Your task to perform on an android device: Open ESPN.com Image 0: 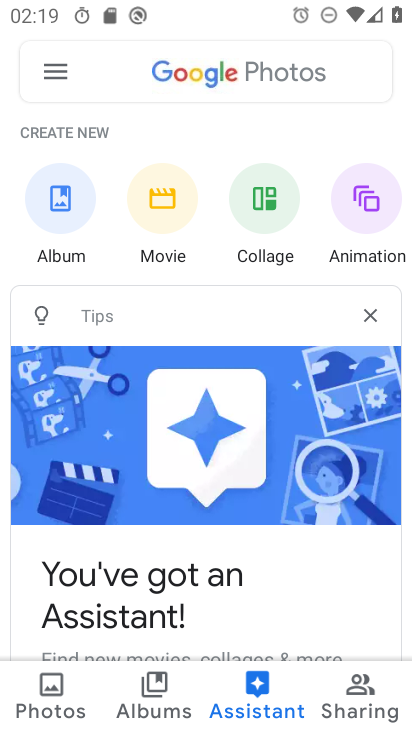
Step 0: press home button
Your task to perform on an android device: Open ESPN.com Image 1: 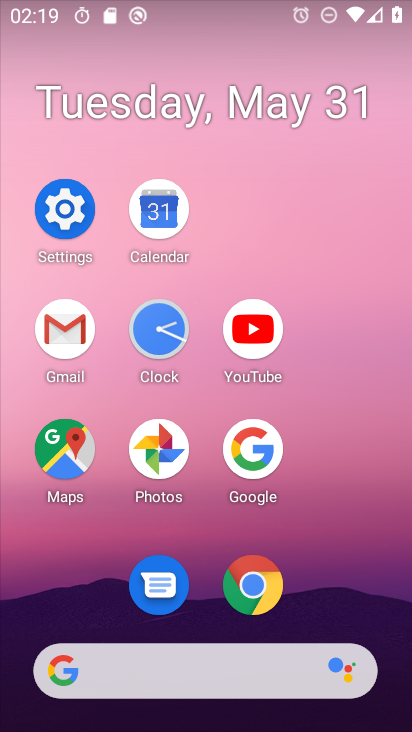
Step 1: click (259, 586)
Your task to perform on an android device: Open ESPN.com Image 2: 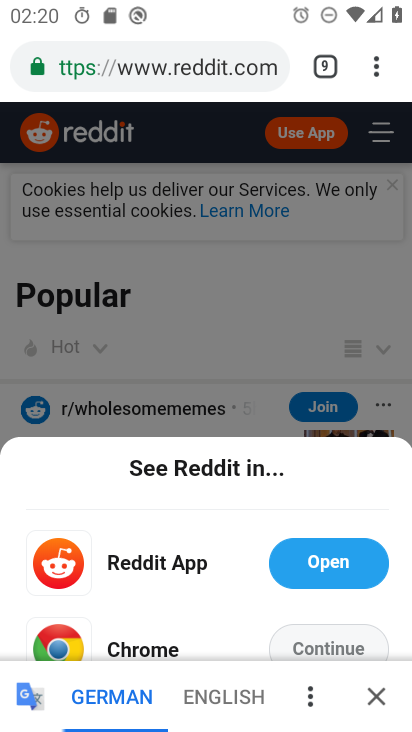
Step 2: click (328, 64)
Your task to perform on an android device: Open ESPN.com Image 3: 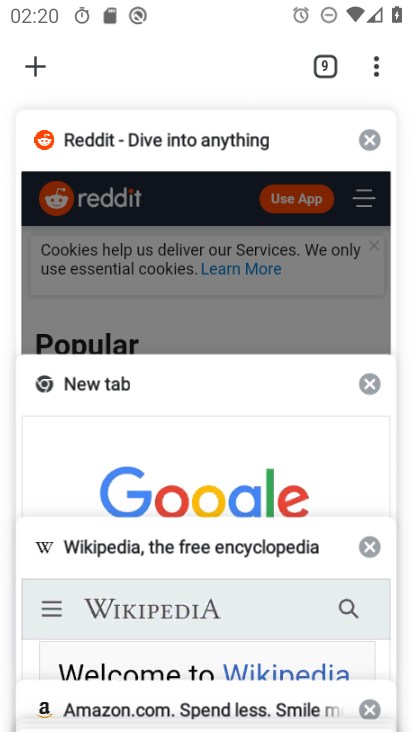
Step 3: drag from (249, 135) to (271, 513)
Your task to perform on an android device: Open ESPN.com Image 4: 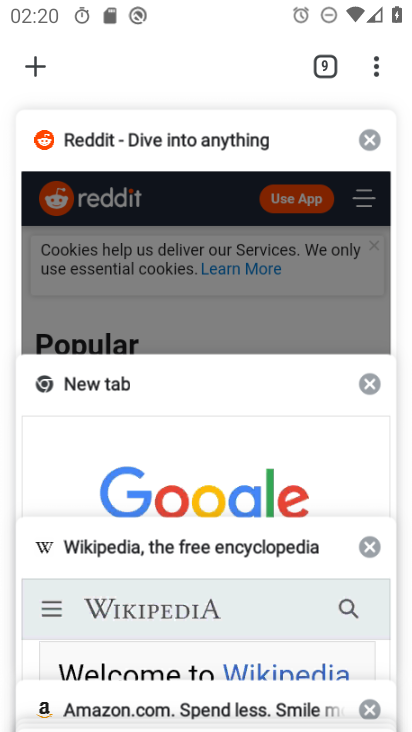
Step 4: drag from (261, 490) to (282, 90)
Your task to perform on an android device: Open ESPN.com Image 5: 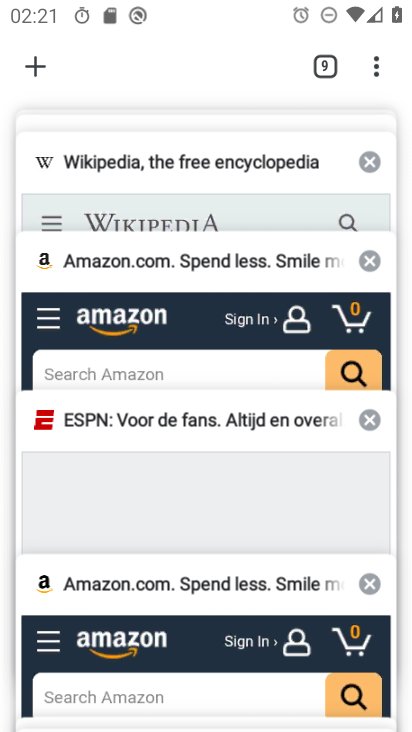
Step 5: drag from (217, 412) to (275, 90)
Your task to perform on an android device: Open ESPN.com Image 6: 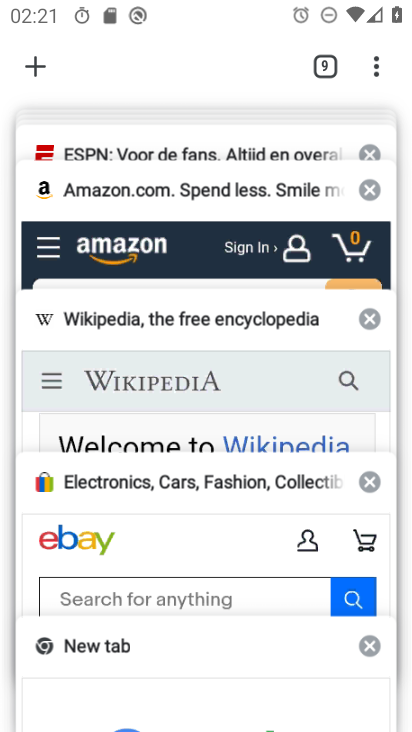
Step 6: click (217, 136)
Your task to perform on an android device: Open ESPN.com Image 7: 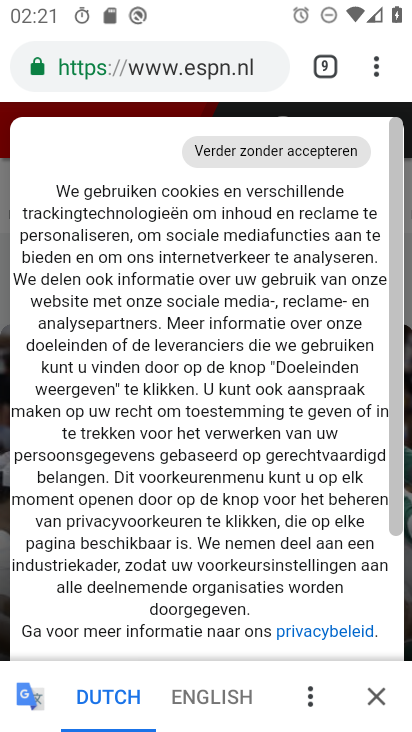
Step 7: task complete